Your task to perform on an android device: Go to location settings Image 0: 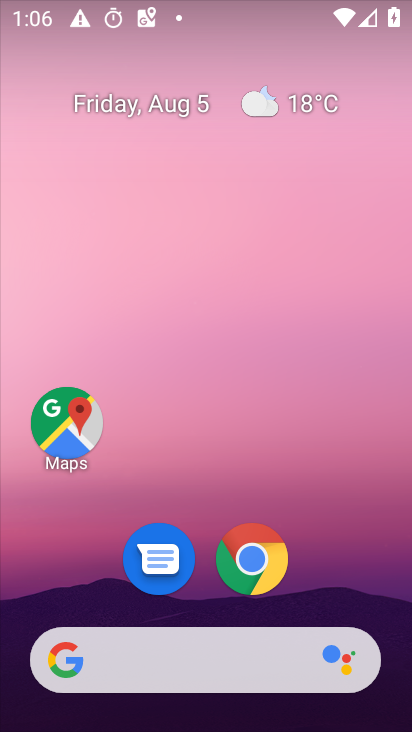
Step 0: drag from (57, 696) to (206, 174)
Your task to perform on an android device: Go to location settings Image 1: 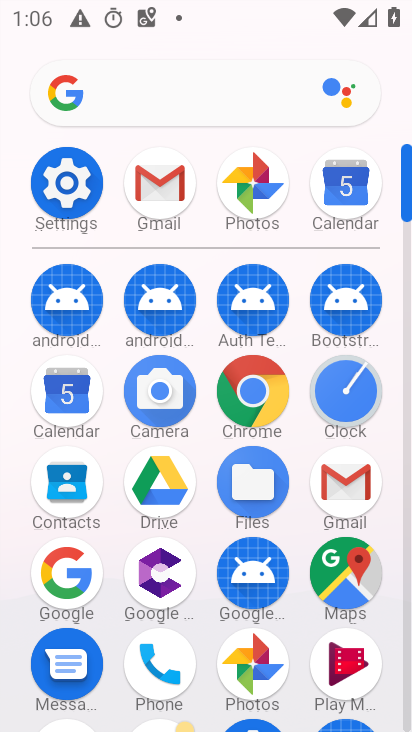
Step 1: click (60, 187)
Your task to perform on an android device: Go to location settings Image 2: 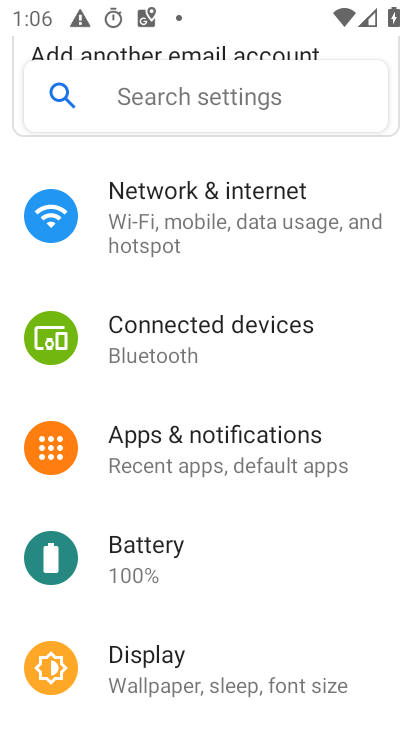
Step 2: drag from (384, 709) to (231, 319)
Your task to perform on an android device: Go to location settings Image 3: 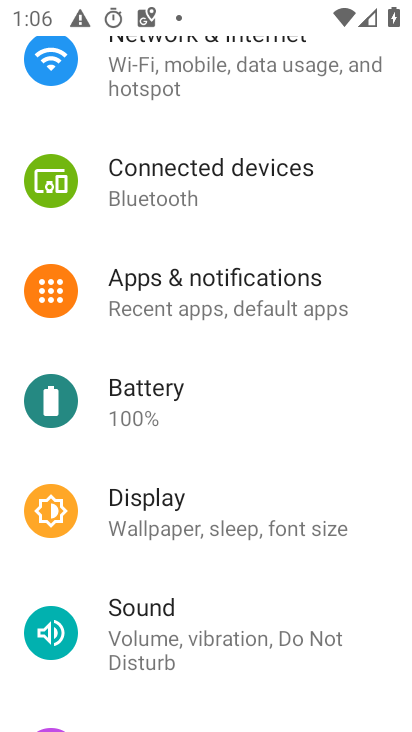
Step 3: drag from (315, 210) to (250, 73)
Your task to perform on an android device: Go to location settings Image 4: 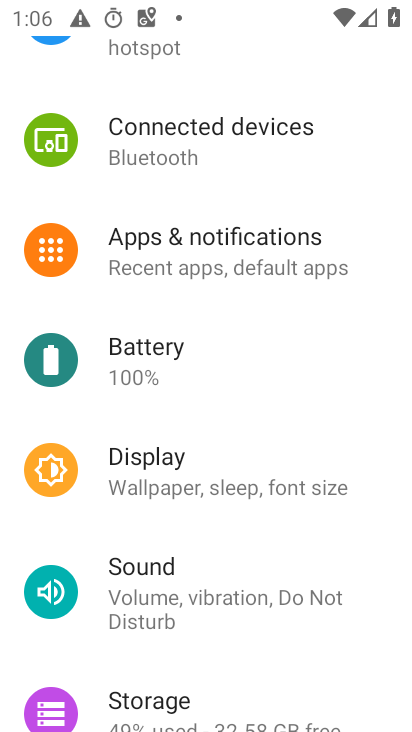
Step 4: drag from (384, 687) to (304, 384)
Your task to perform on an android device: Go to location settings Image 5: 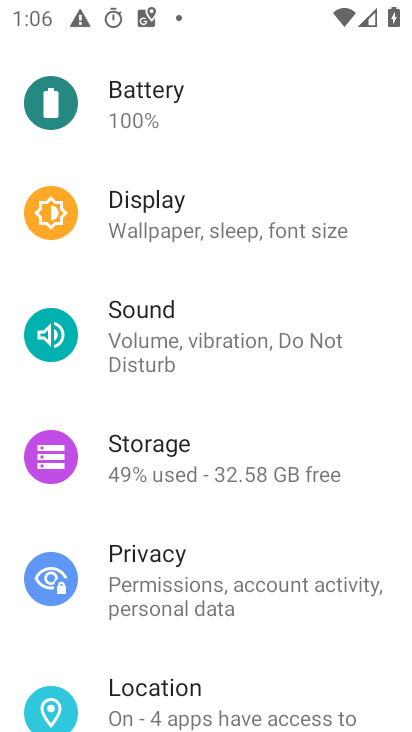
Step 5: click (193, 692)
Your task to perform on an android device: Go to location settings Image 6: 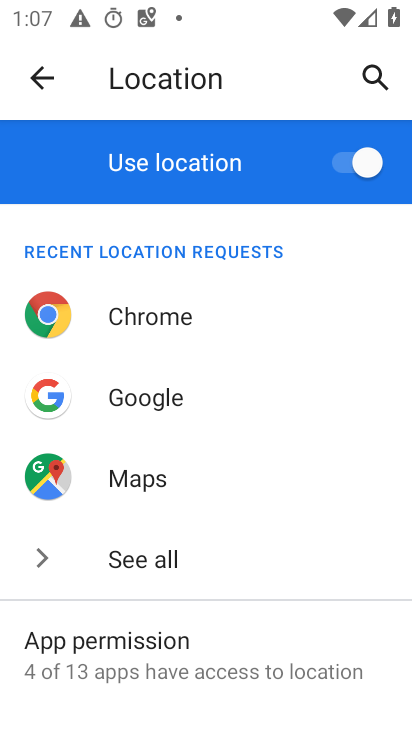
Step 6: click (245, 196)
Your task to perform on an android device: Go to location settings Image 7: 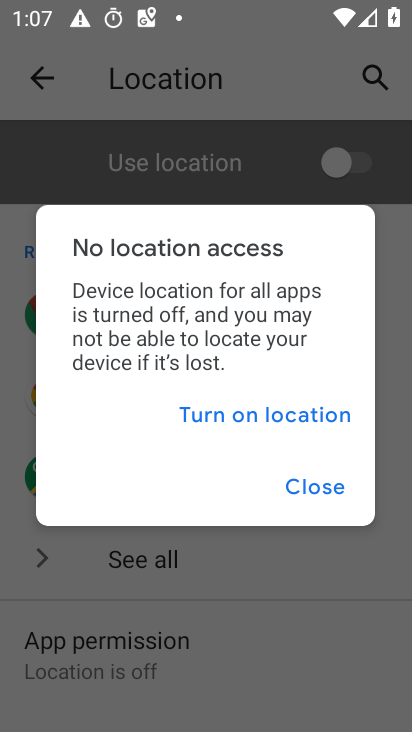
Step 7: click (333, 167)
Your task to perform on an android device: Go to location settings Image 8: 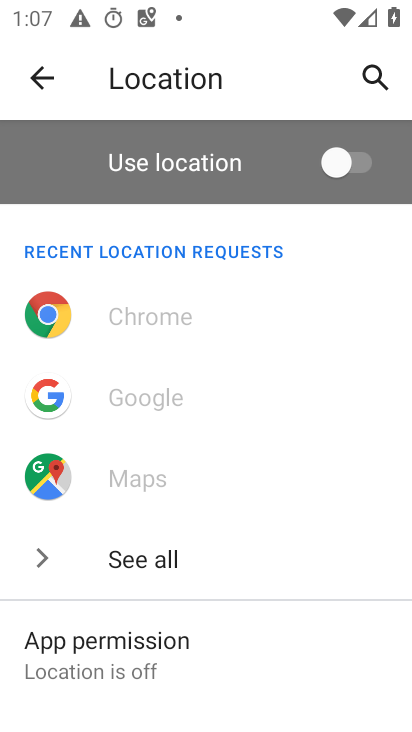
Step 8: click (341, 156)
Your task to perform on an android device: Go to location settings Image 9: 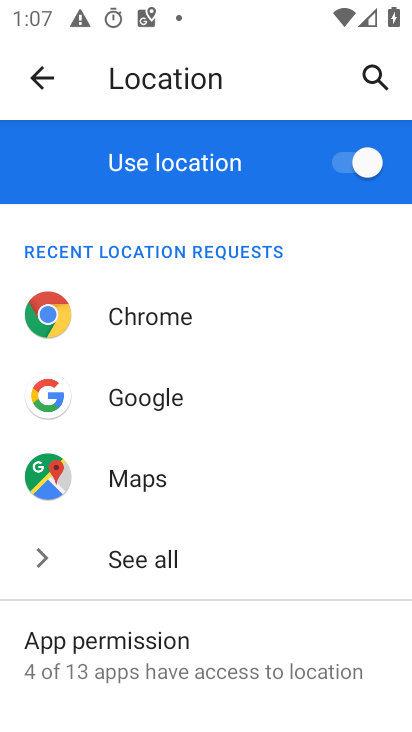
Step 9: task complete